Your task to perform on an android device: check data usage Image 0: 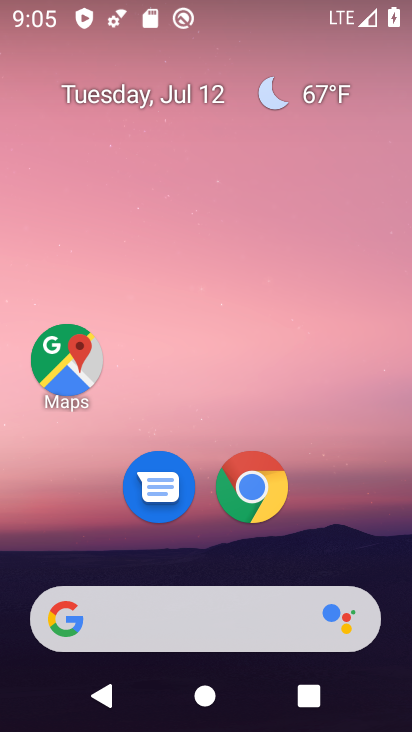
Step 0: drag from (188, 538) to (250, 18)
Your task to perform on an android device: check data usage Image 1: 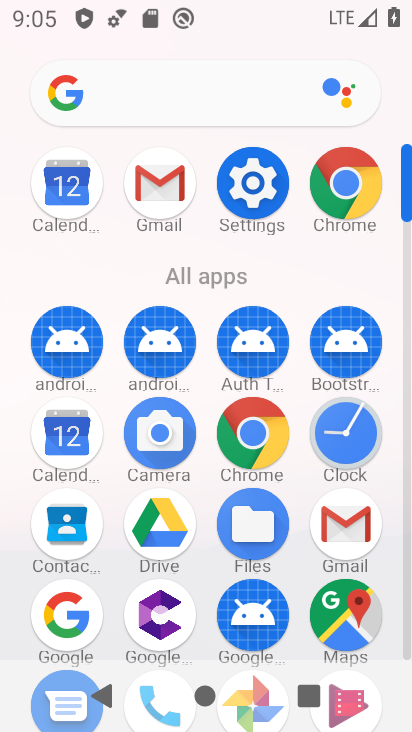
Step 1: click (246, 192)
Your task to perform on an android device: check data usage Image 2: 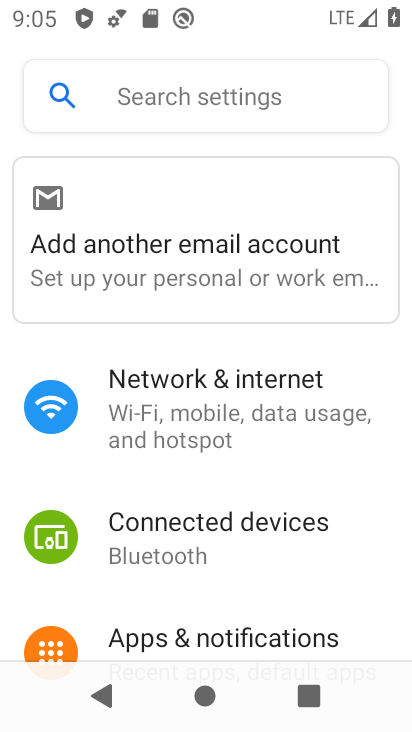
Step 2: click (214, 410)
Your task to perform on an android device: check data usage Image 3: 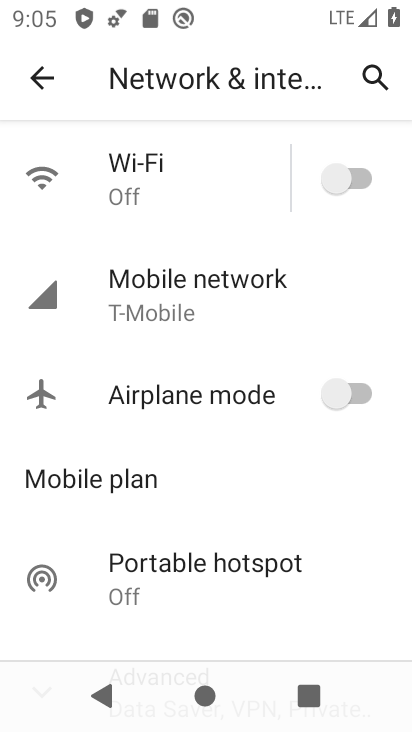
Step 3: click (177, 290)
Your task to perform on an android device: check data usage Image 4: 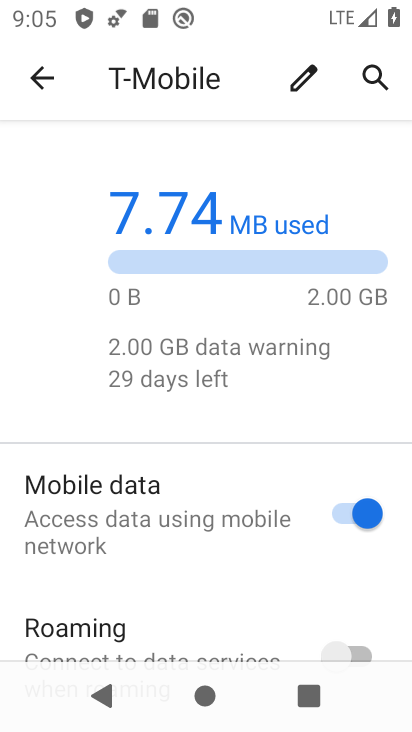
Step 4: drag from (166, 614) to (297, 135)
Your task to perform on an android device: check data usage Image 5: 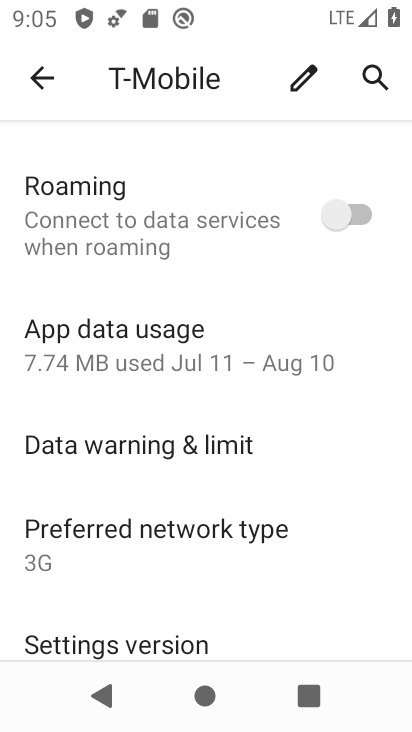
Step 5: click (131, 337)
Your task to perform on an android device: check data usage Image 6: 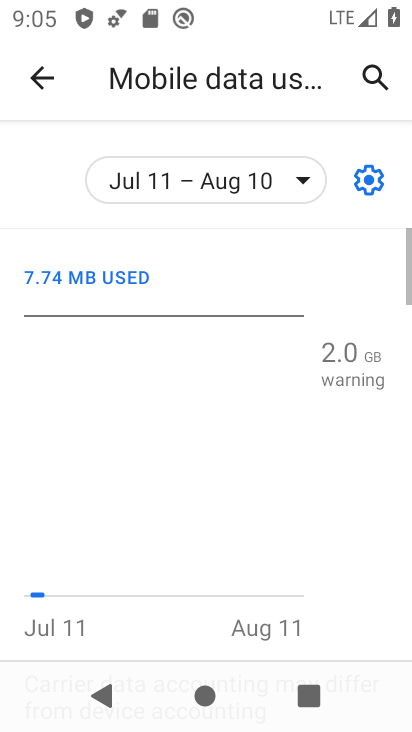
Step 6: task complete